Your task to perform on an android device: change text size in settings app Image 0: 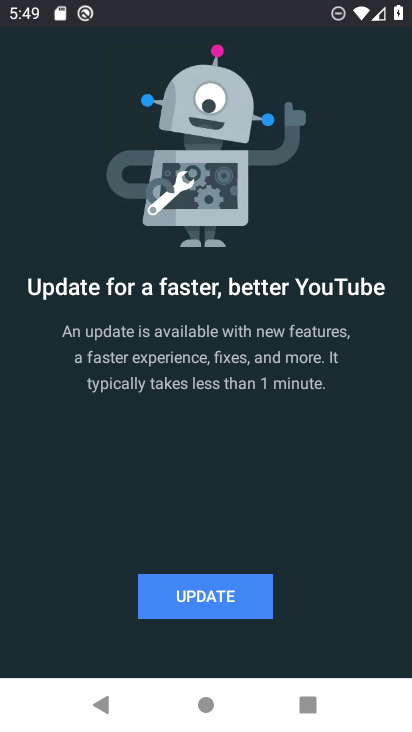
Step 0: press home button
Your task to perform on an android device: change text size in settings app Image 1: 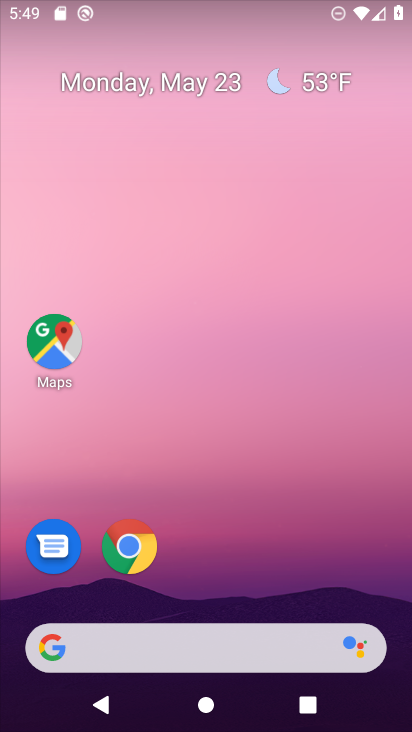
Step 1: drag from (244, 586) to (173, 171)
Your task to perform on an android device: change text size in settings app Image 2: 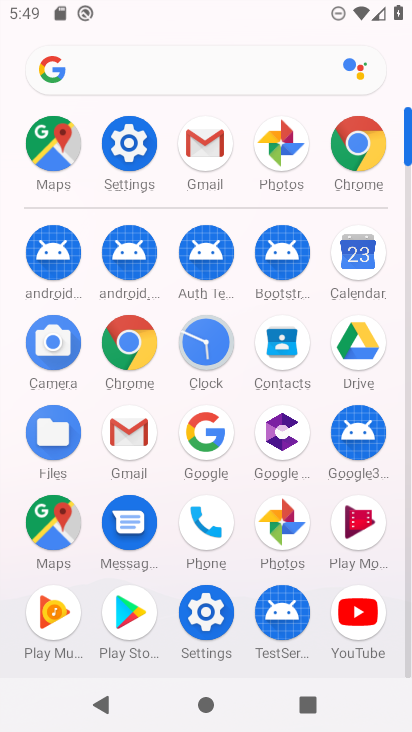
Step 2: click (134, 134)
Your task to perform on an android device: change text size in settings app Image 3: 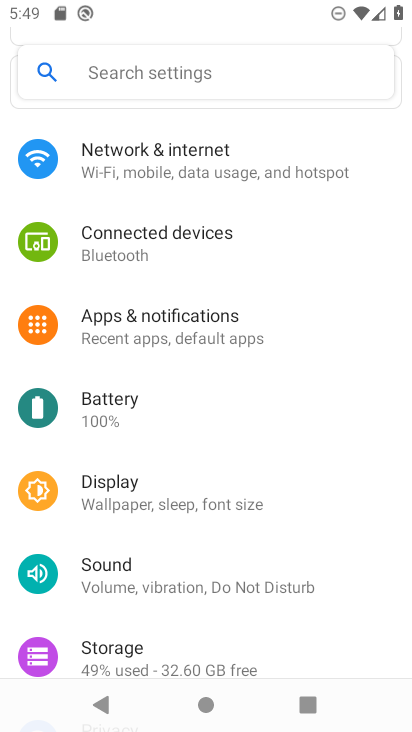
Step 3: click (158, 491)
Your task to perform on an android device: change text size in settings app Image 4: 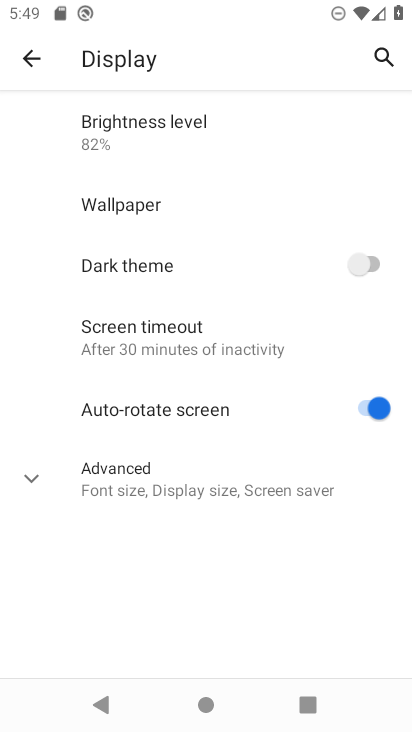
Step 4: click (185, 487)
Your task to perform on an android device: change text size in settings app Image 5: 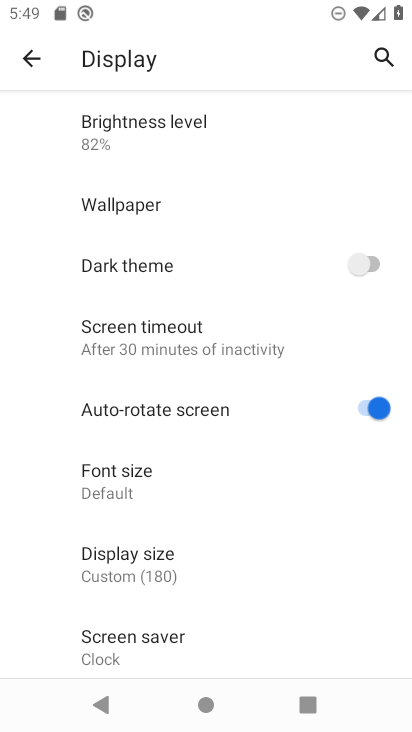
Step 5: click (133, 482)
Your task to perform on an android device: change text size in settings app Image 6: 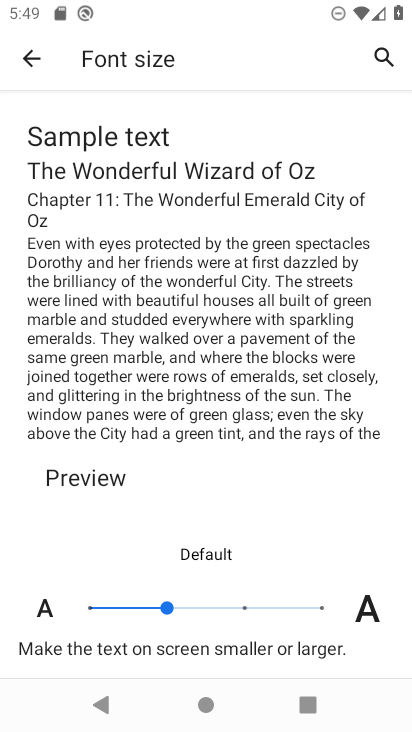
Step 6: click (91, 608)
Your task to perform on an android device: change text size in settings app Image 7: 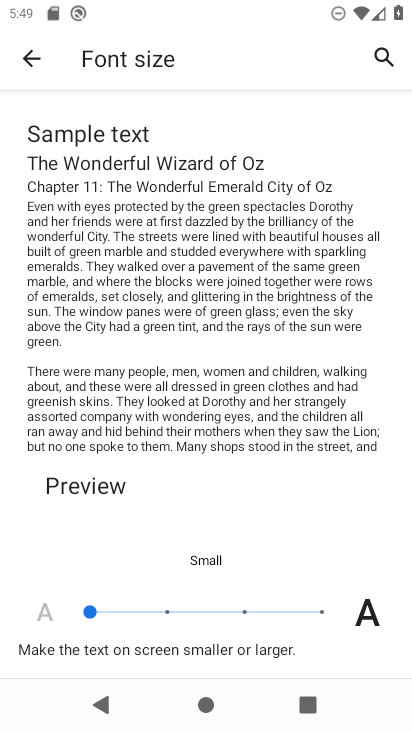
Step 7: task complete